Your task to perform on an android device: set default search engine in the chrome app Image 0: 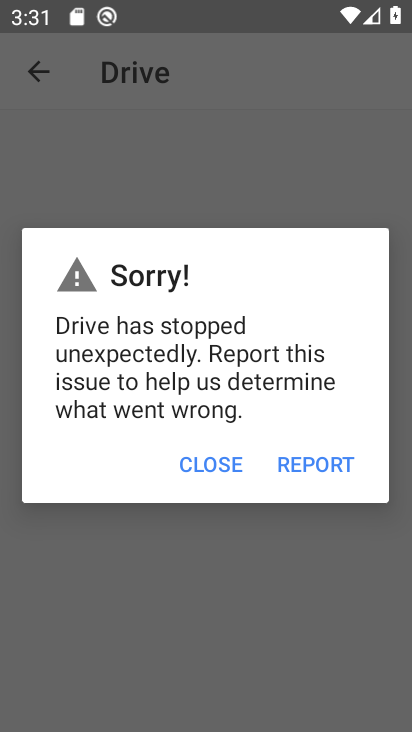
Step 0: press home button
Your task to perform on an android device: set default search engine in the chrome app Image 1: 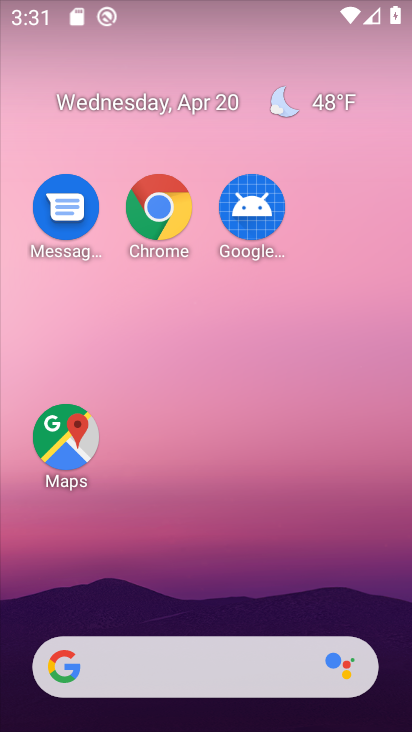
Step 1: drag from (279, 607) to (303, 221)
Your task to perform on an android device: set default search engine in the chrome app Image 2: 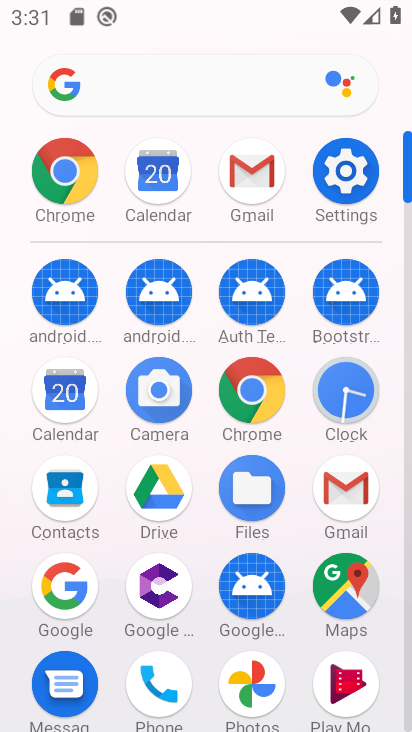
Step 2: click (263, 399)
Your task to perform on an android device: set default search engine in the chrome app Image 3: 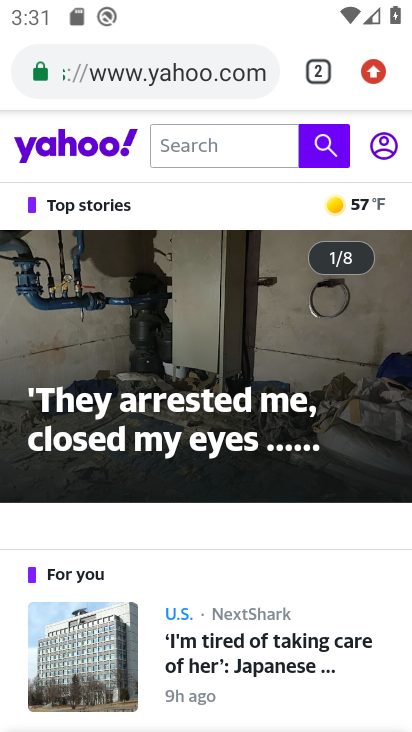
Step 3: click (377, 70)
Your task to perform on an android device: set default search engine in the chrome app Image 4: 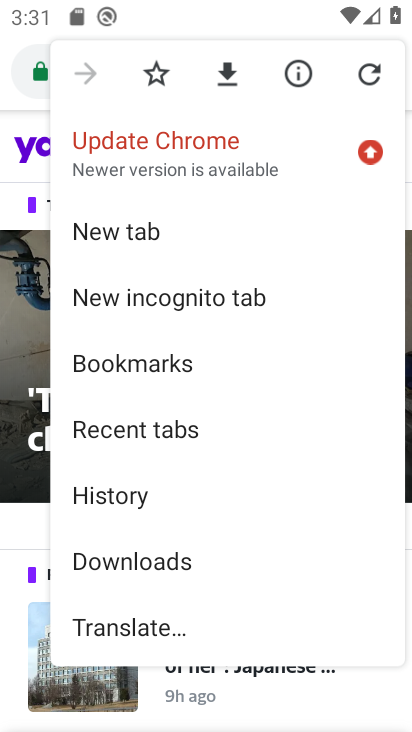
Step 4: drag from (188, 590) to (220, 405)
Your task to perform on an android device: set default search engine in the chrome app Image 5: 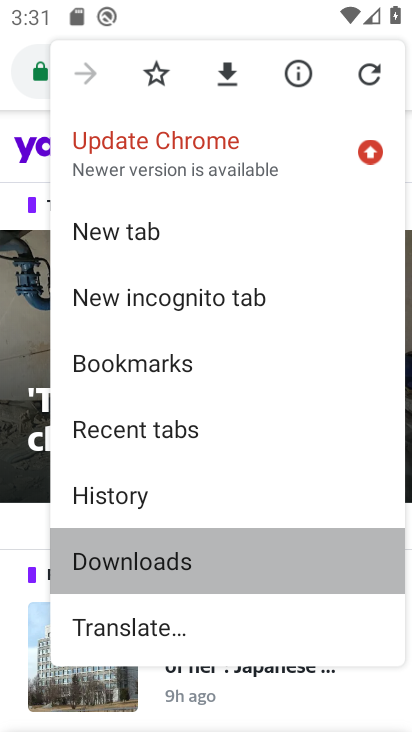
Step 5: drag from (174, 530) to (213, 302)
Your task to perform on an android device: set default search engine in the chrome app Image 6: 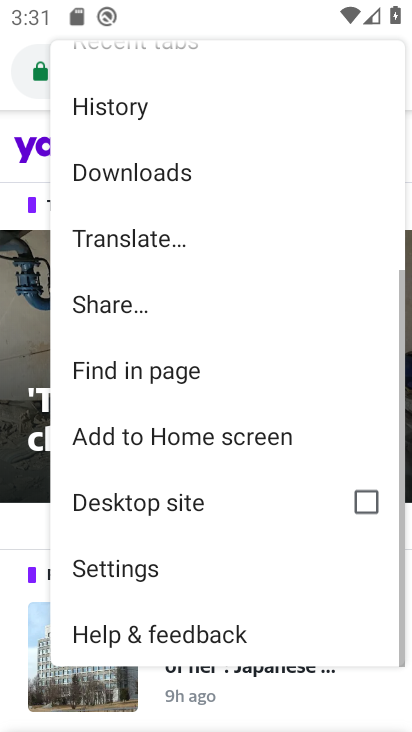
Step 6: drag from (207, 447) to (233, 268)
Your task to perform on an android device: set default search engine in the chrome app Image 7: 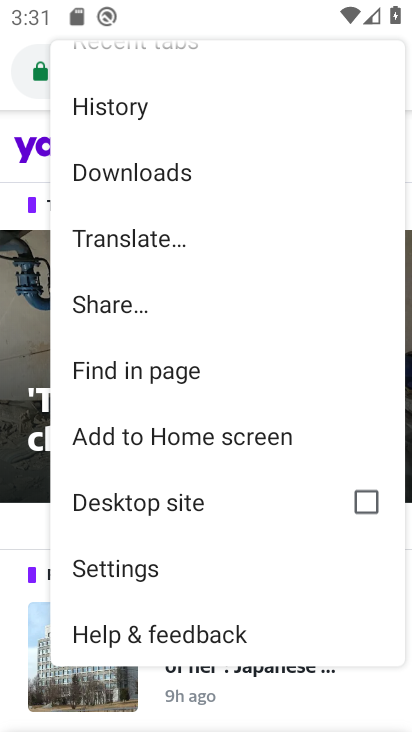
Step 7: drag from (201, 476) to (223, 318)
Your task to perform on an android device: set default search engine in the chrome app Image 8: 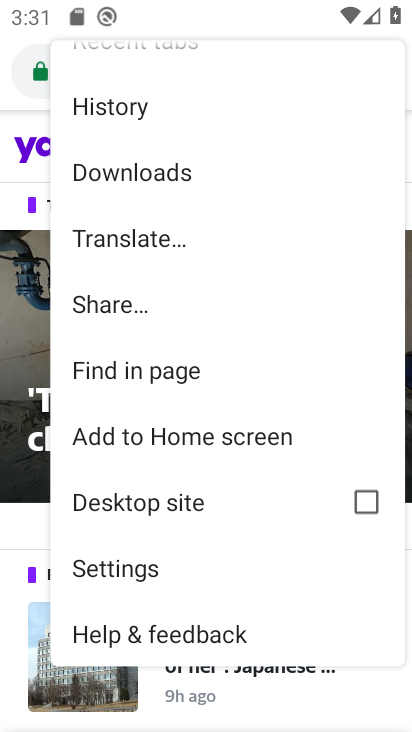
Step 8: click (200, 574)
Your task to perform on an android device: set default search engine in the chrome app Image 9: 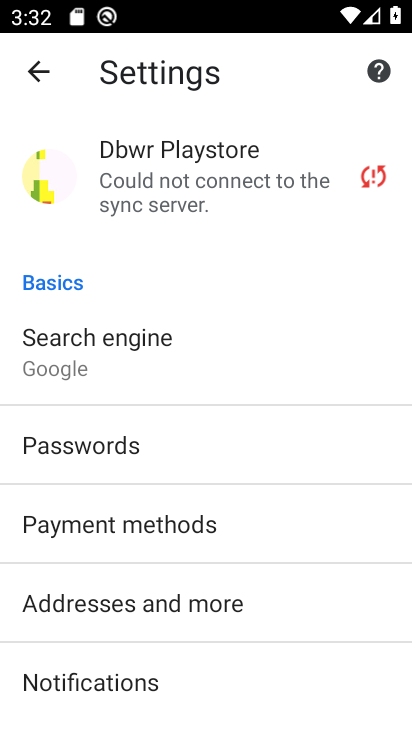
Step 9: click (192, 342)
Your task to perform on an android device: set default search engine in the chrome app Image 10: 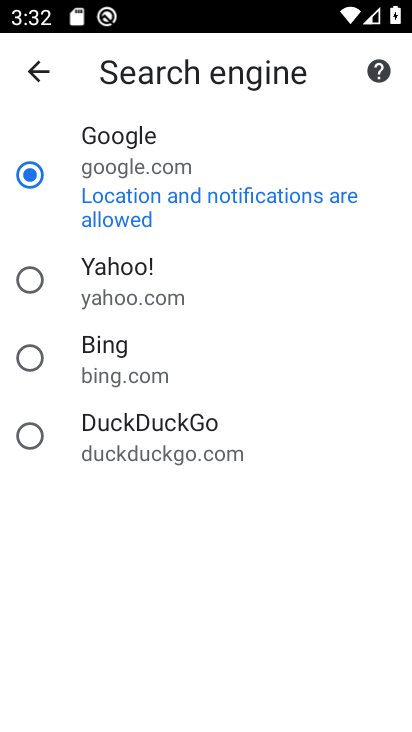
Step 10: task complete